Your task to perform on an android device: turn off location Image 0: 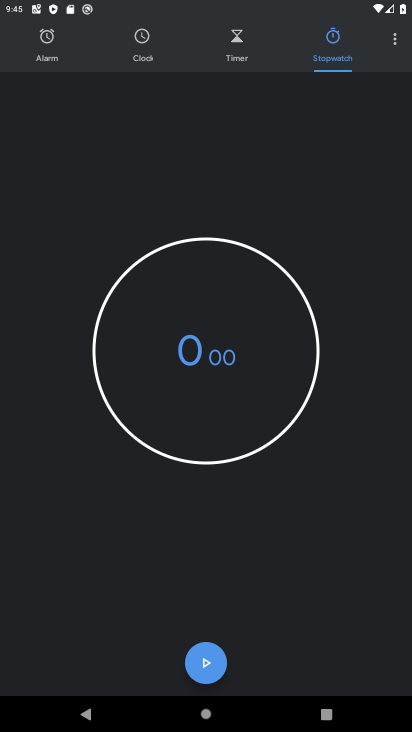
Step 0: press home button
Your task to perform on an android device: turn off location Image 1: 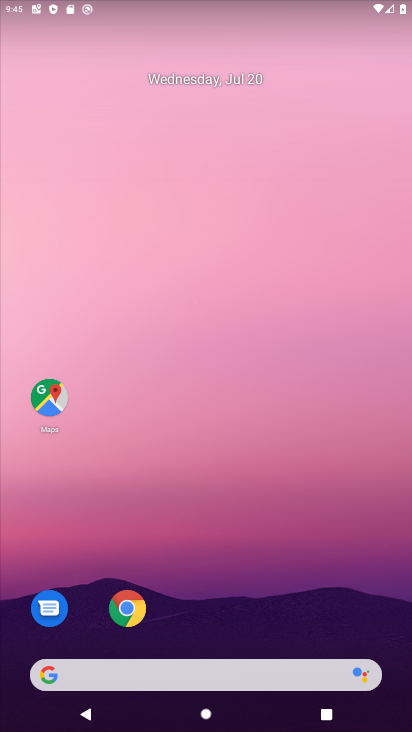
Step 1: drag from (245, 699) to (373, 7)
Your task to perform on an android device: turn off location Image 2: 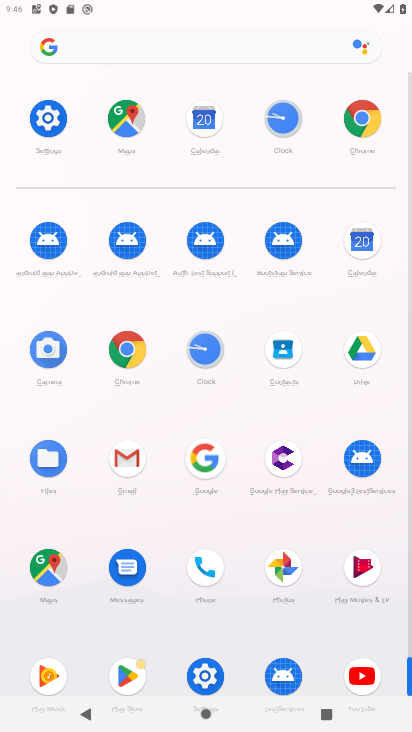
Step 2: click (49, 126)
Your task to perform on an android device: turn off location Image 3: 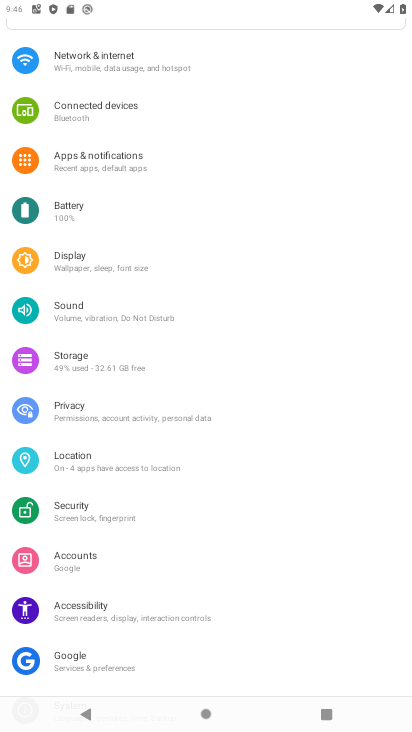
Step 3: click (113, 470)
Your task to perform on an android device: turn off location Image 4: 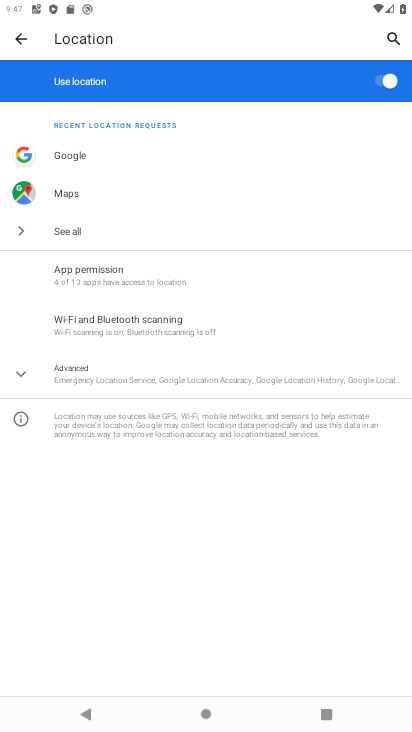
Step 4: click (390, 78)
Your task to perform on an android device: turn off location Image 5: 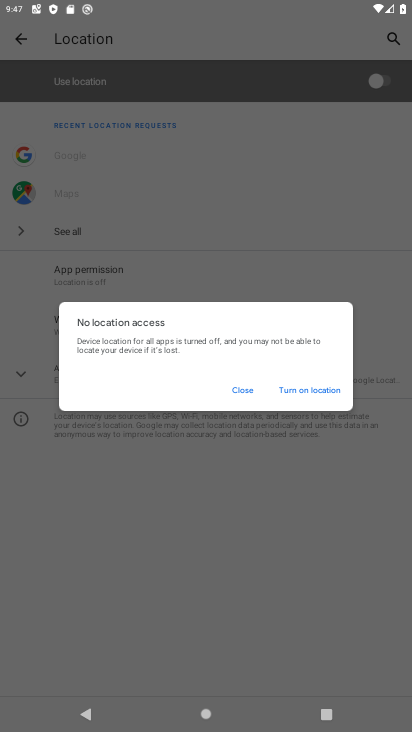
Step 5: task complete